Your task to perform on an android device: Go to Wikipedia Image 0: 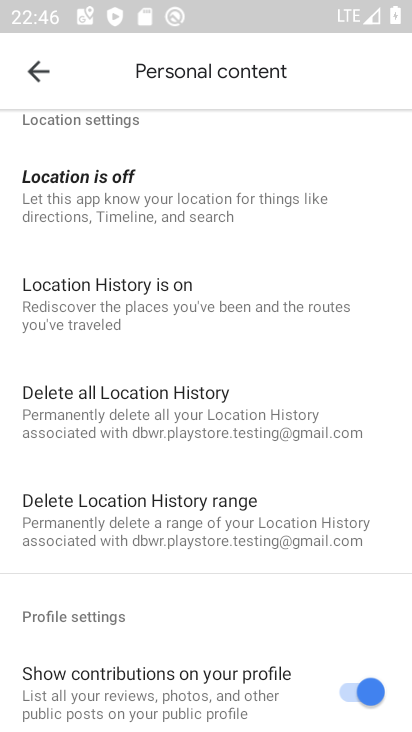
Step 0: press home button
Your task to perform on an android device: Go to Wikipedia Image 1: 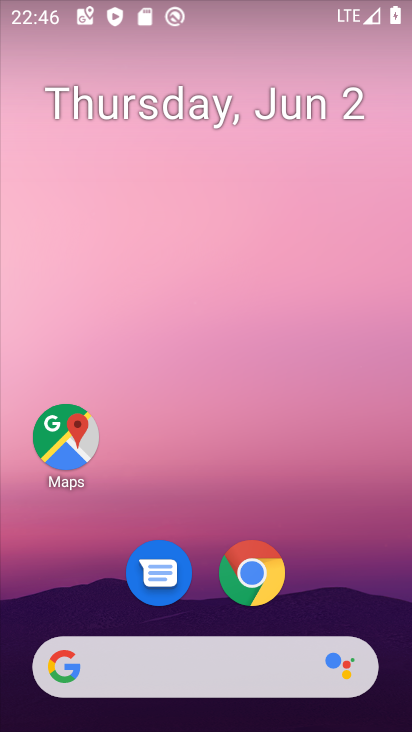
Step 1: click (259, 582)
Your task to perform on an android device: Go to Wikipedia Image 2: 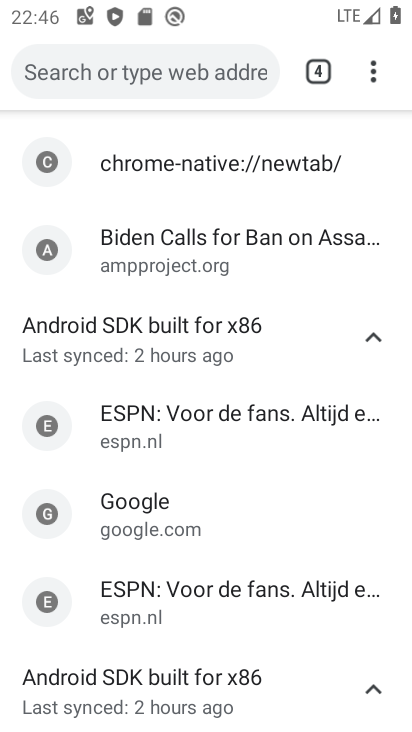
Step 2: click (322, 76)
Your task to perform on an android device: Go to Wikipedia Image 3: 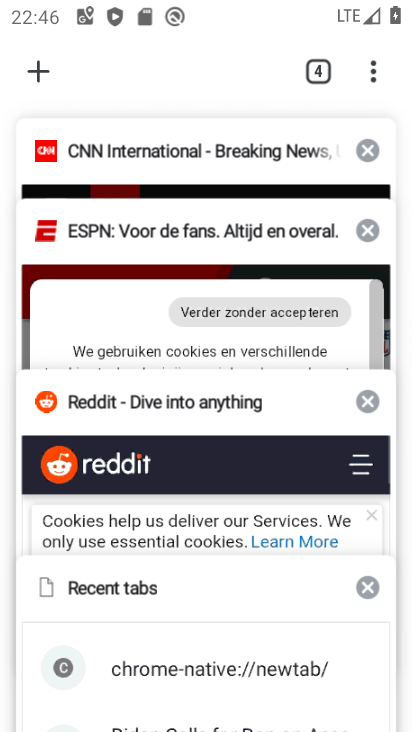
Step 3: click (35, 72)
Your task to perform on an android device: Go to Wikipedia Image 4: 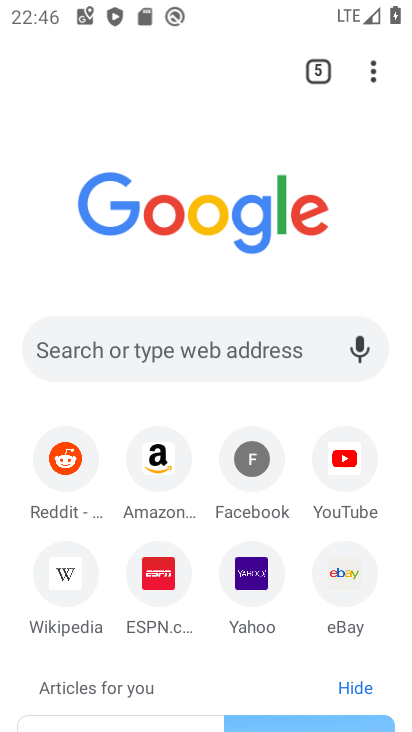
Step 4: click (77, 572)
Your task to perform on an android device: Go to Wikipedia Image 5: 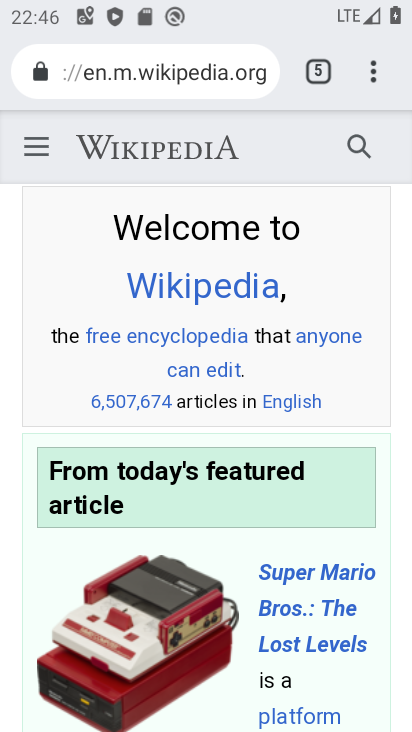
Step 5: task complete